Your task to perform on an android device: change keyboard looks Image 0: 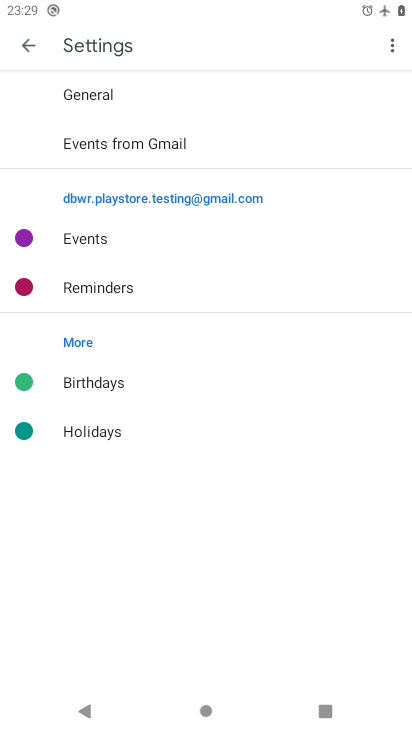
Step 0: press home button
Your task to perform on an android device: change keyboard looks Image 1: 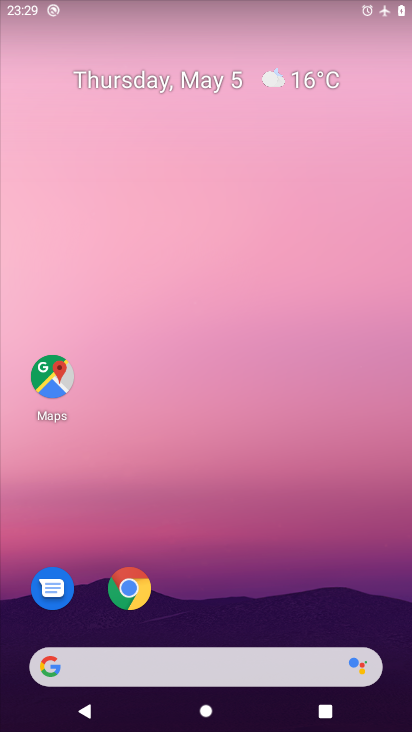
Step 1: drag from (279, 587) to (294, 175)
Your task to perform on an android device: change keyboard looks Image 2: 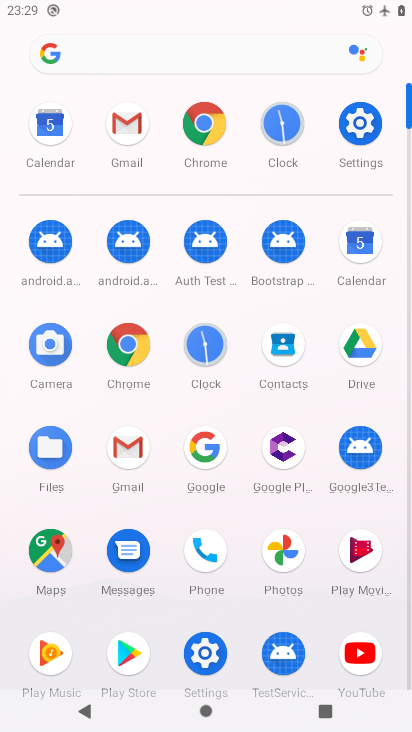
Step 2: click (367, 129)
Your task to perform on an android device: change keyboard looks Image 3: 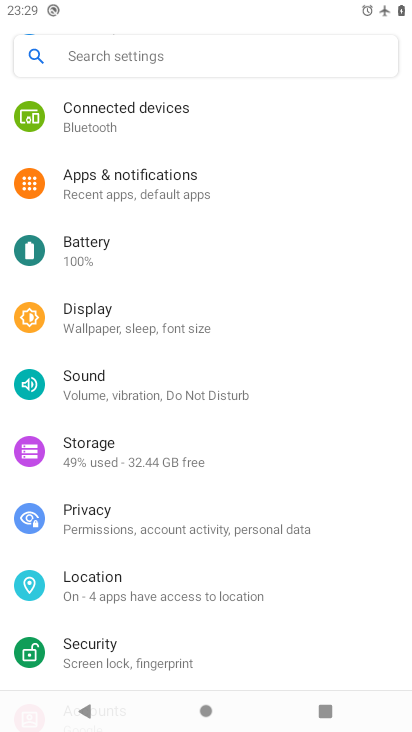
Step 3: drag from (245, 633) to (176, 231)
Your task to perform on an android device: change keyboard looks Image 4: 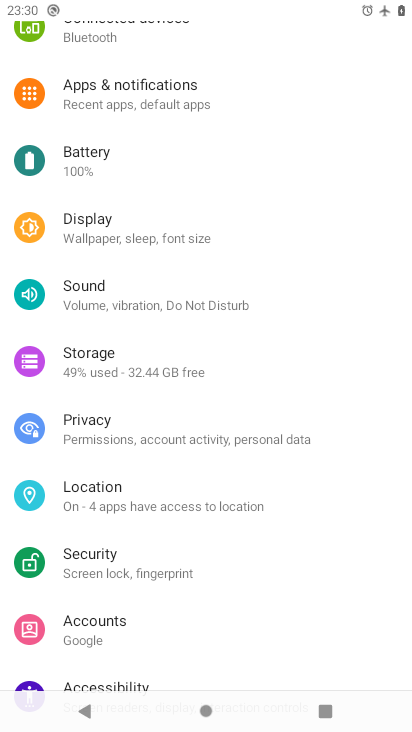
Step 4: drag from (258, 640) to (220, 254)
Your task to perform on an android device: change keyboard looks Image 5: 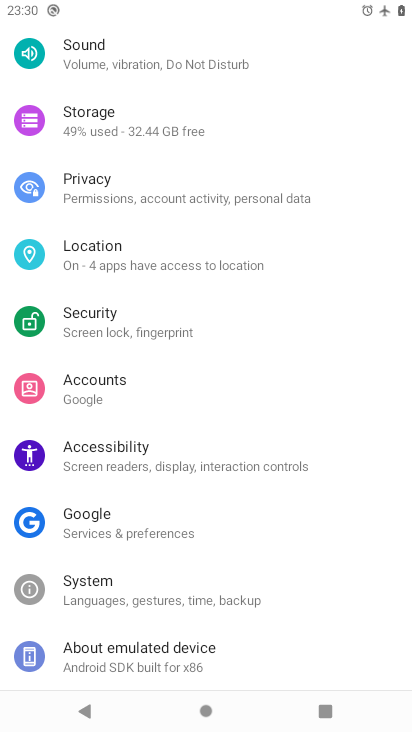
Step 5: click (241, 600)
Your task to perform on an android device: change keyboard looks Image 6: 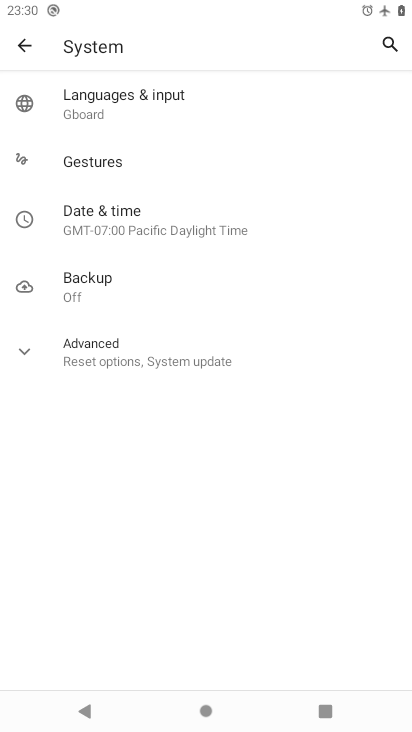
Step 6: click (179, 107)
Your task to perform on an android device: change keyboard looks Image 7: 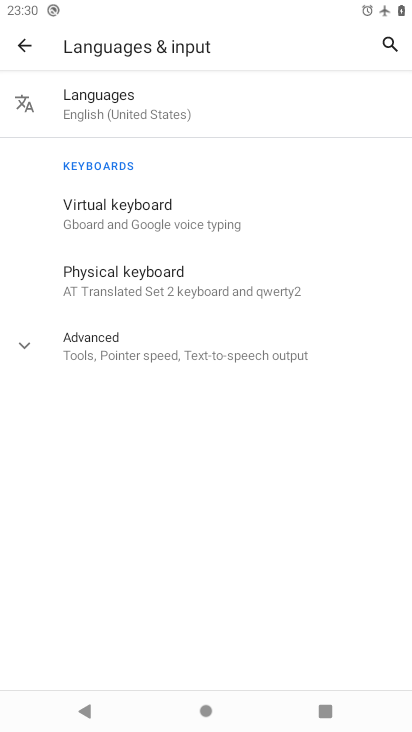
Step 7: click (179, 229)
Your task to perform on an android device: change keyboard looks Image 8: 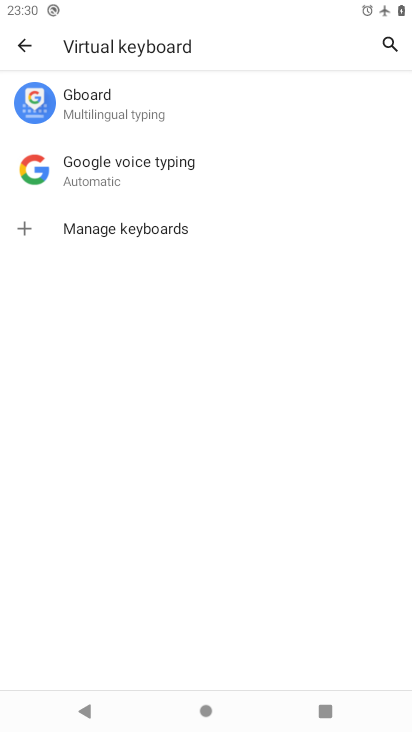
Step 8: click (162, 108)
Your task to perform on an android device: change keyboard looks Image 9: 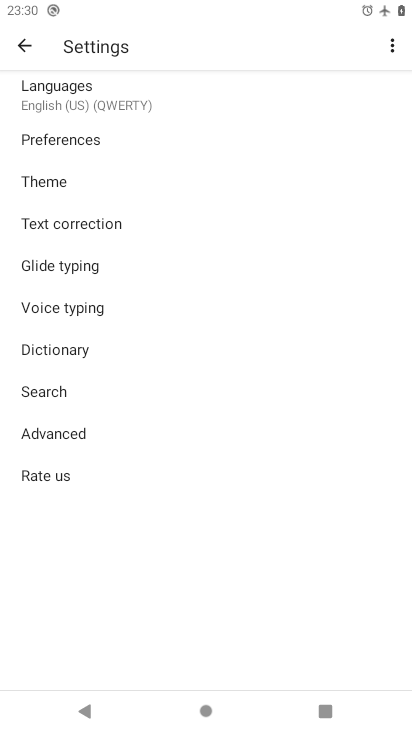
Step 9: click (102, 185)
Your task to perform on an android device: change keyboard looks Image 10: 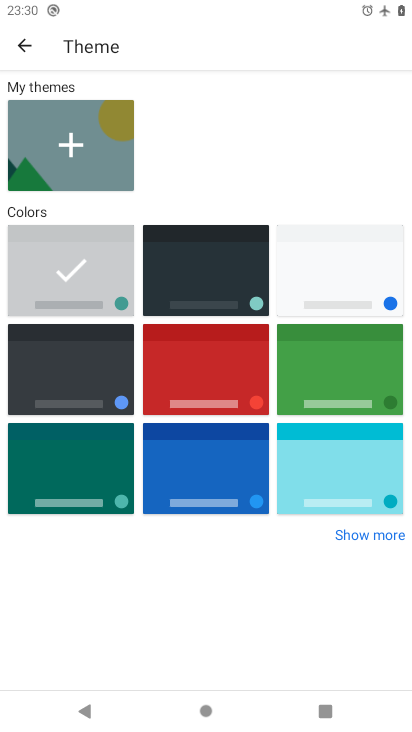
Step 10: click (177, 254)
Your task to perform on an android device: change keyboard looks Image 11: 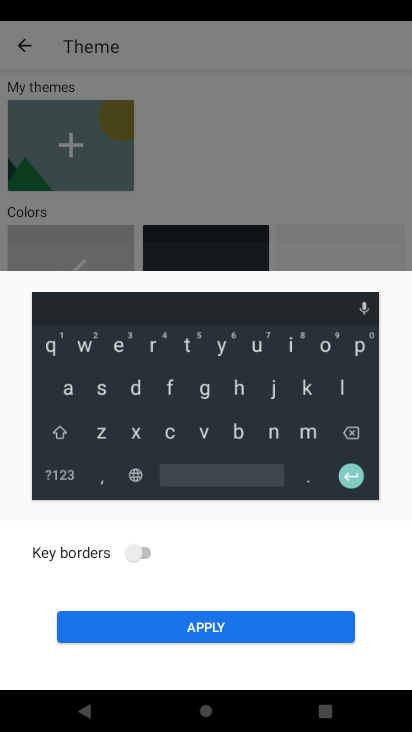
Step 11: click (278, 625)
Your task to perform on an android device: change keyboard looks Image 12: 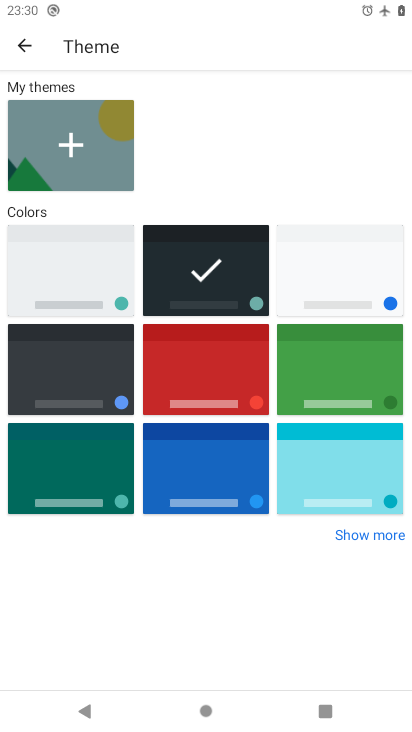
Step 12: task complete